Your task to perform on an android device: What's the weather going to be this weekend? Image 0: 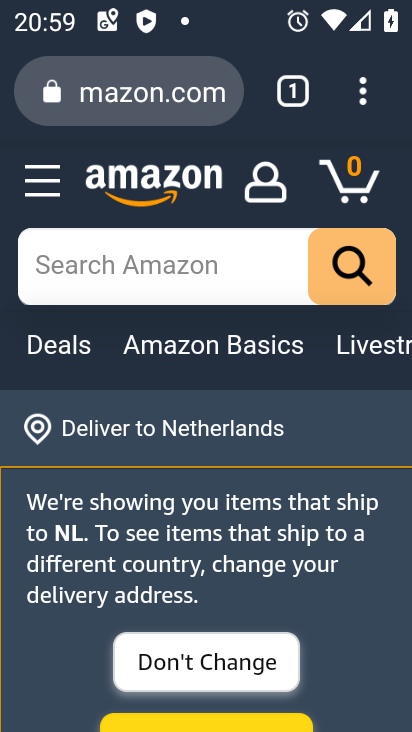
Step 0: press home button
Your task to perform on an android device: What's the weather going to be this weekend? Image 1: 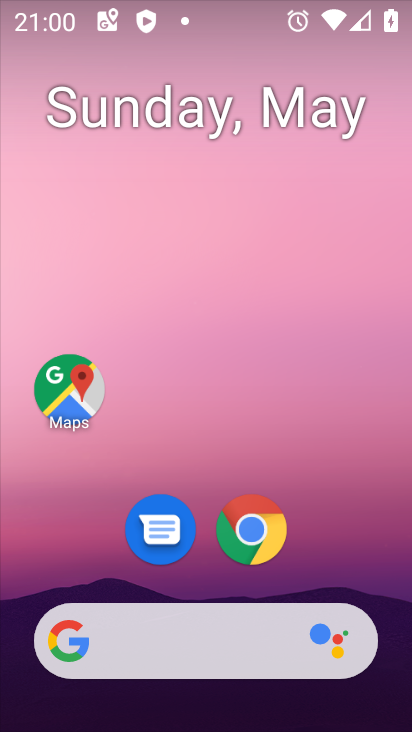
Step 1: click (150, 642)
Your task to perform on an android device: What's the weather going to be this weekend? Image 2: 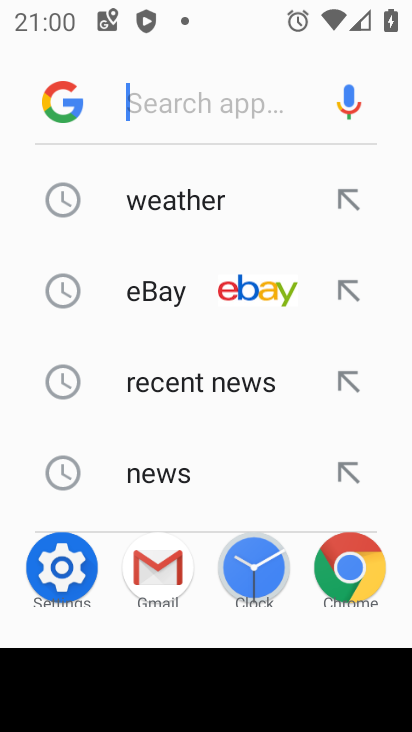
Step 2: click (172, 205)
Your task to perform on an android device: What's the weather going to be this weekend? Image 3: 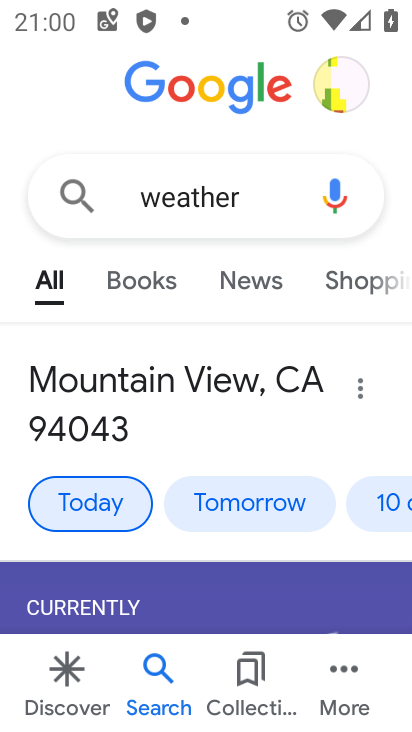
Step 3: click (388, 508)
Your task to perform on an android device: What's the weather going to be this weekend? Image 4: 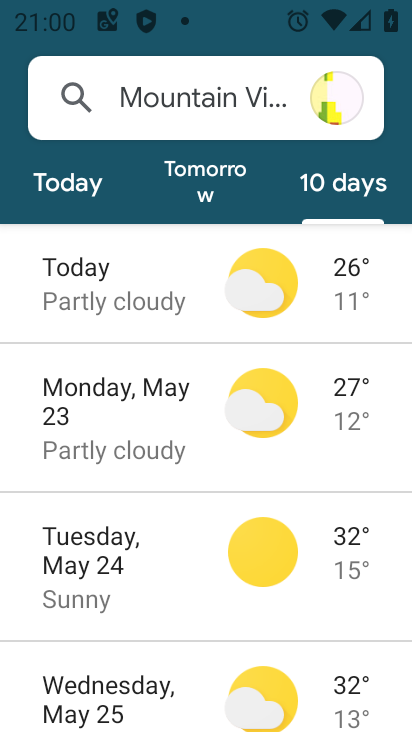
Step 4: task complete